Your task to perform on an android device: Search for razer deathadder on walmart, select the first entry, add it to the cart, then select checkout. Image 0: 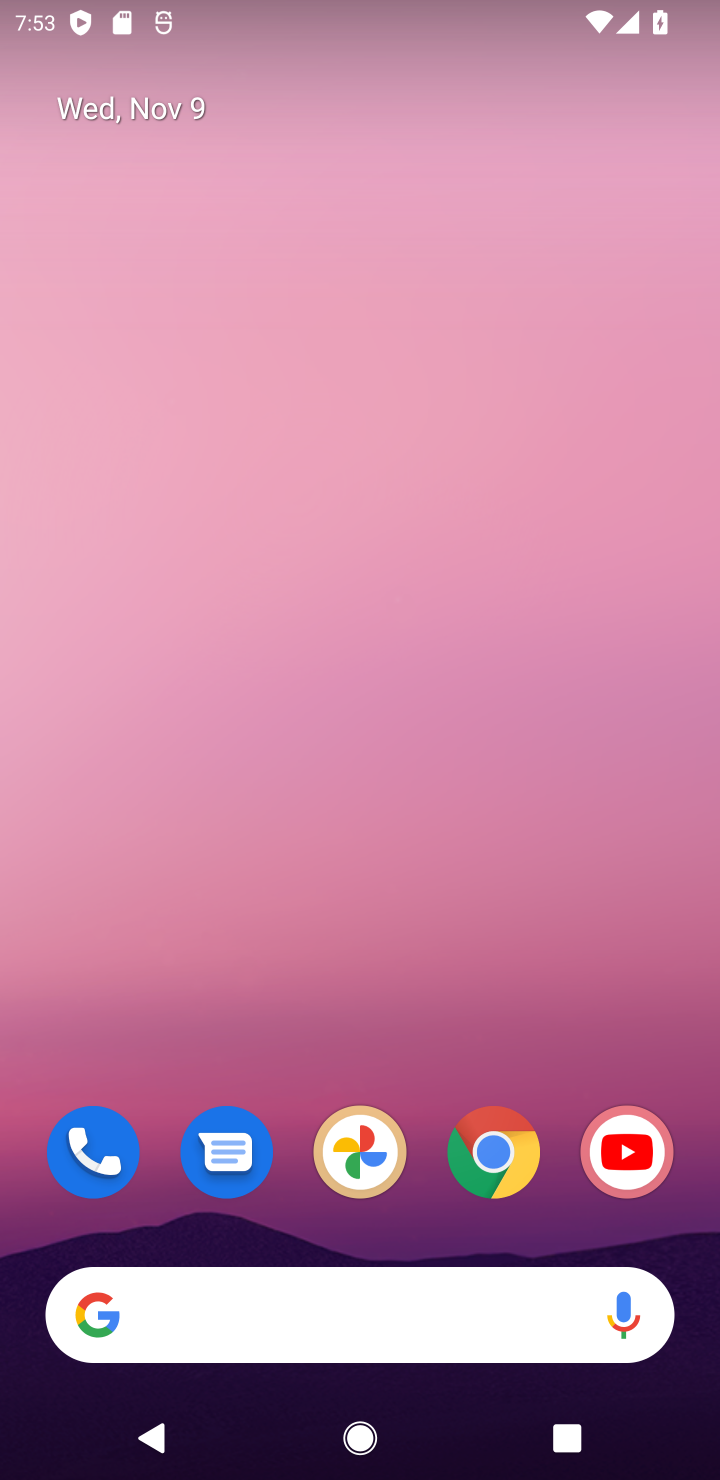
Step 0: click (666, 1210)
Your task to perform on an android device: Search for razer deathadder on walmart, select the first entry, add it to the cart, then select checkout. Image 1: 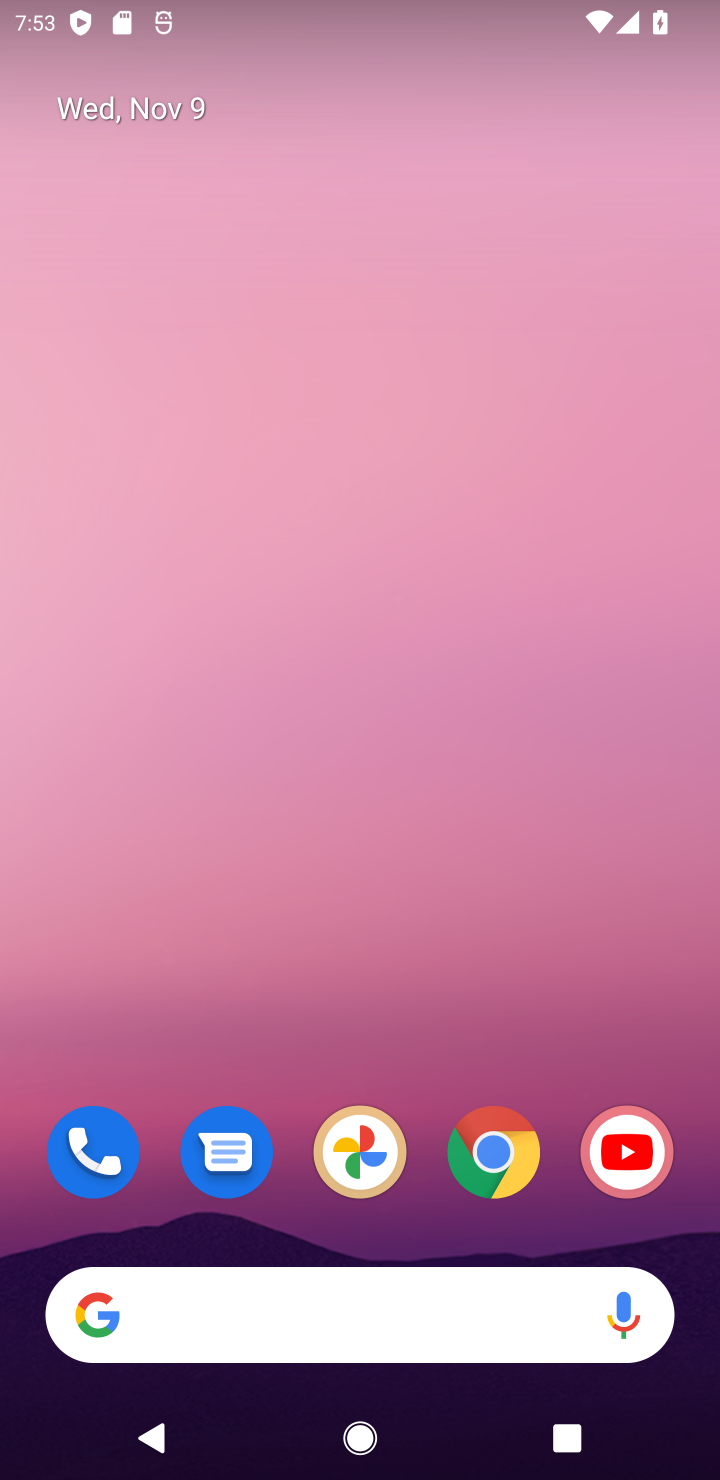
Step 1: click (514, 1153)
Your task to perform on an android device: Search for razer deathadder on walmart, select the first entry, add it to the cart, then select checkout. Image 2: 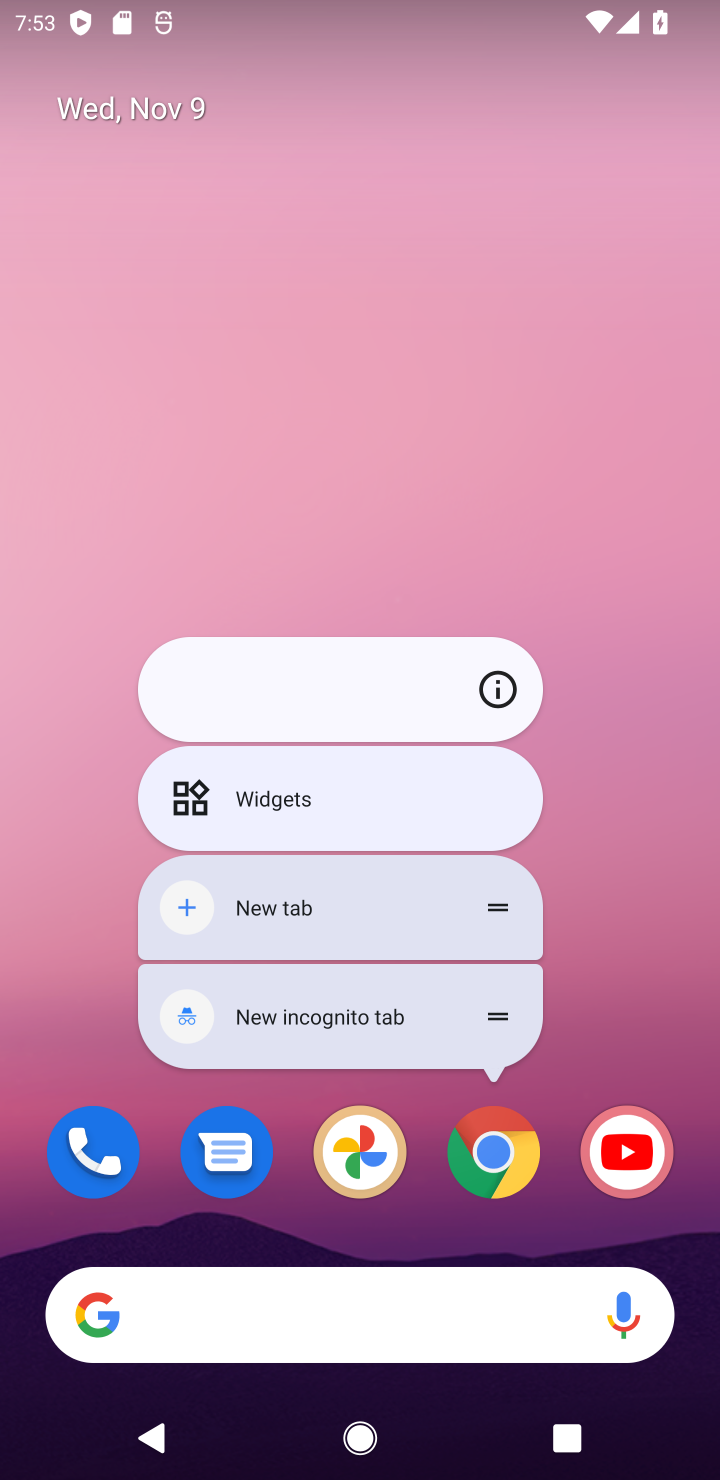
Step 2: click (499, 1157)
Your task to perform on an android device: Search for razer deathadder on walmart, select the first entry, add it to the cart, then select checkout. Image 3: 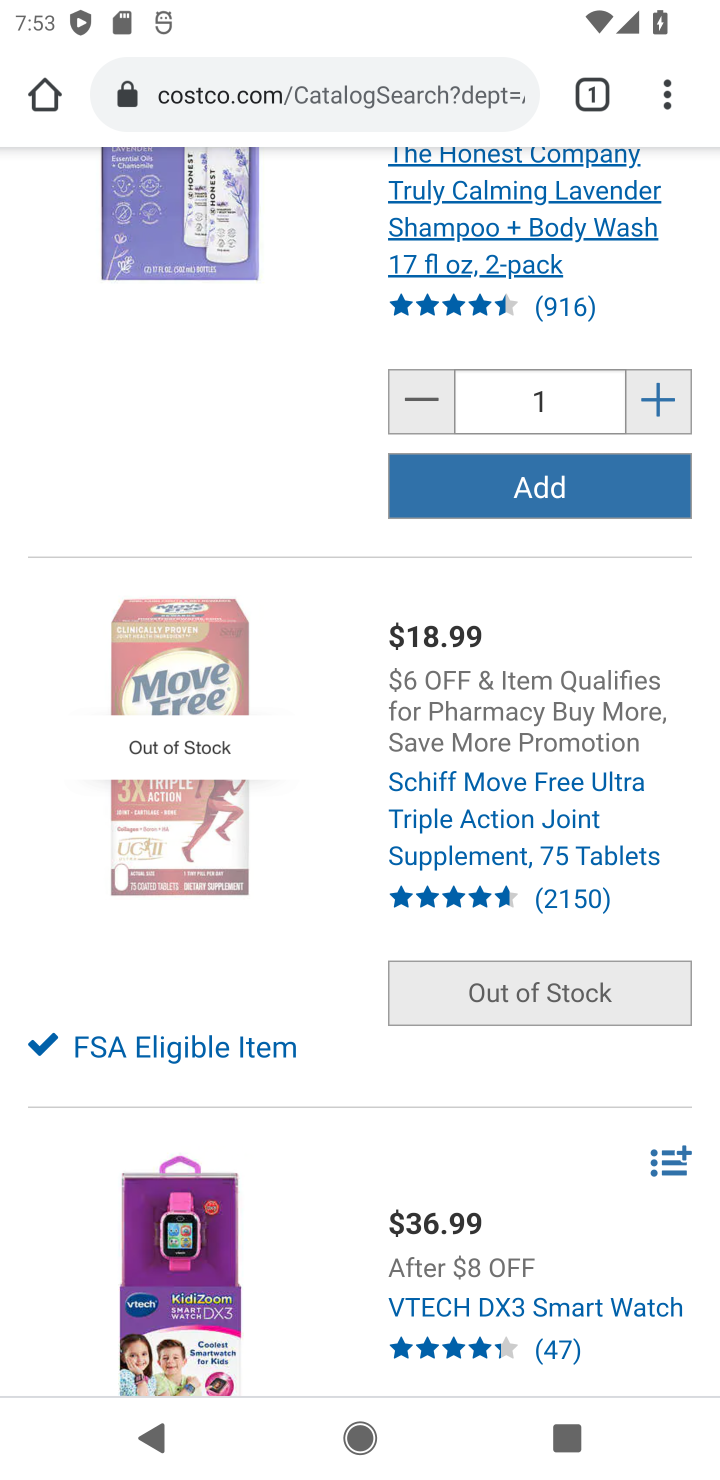
Step 3: click (463, 98)
Your task to perform on an android device: Search for razer deathadder on walmart, select the first entry, add it to the cart, then select checkout. Image 4: 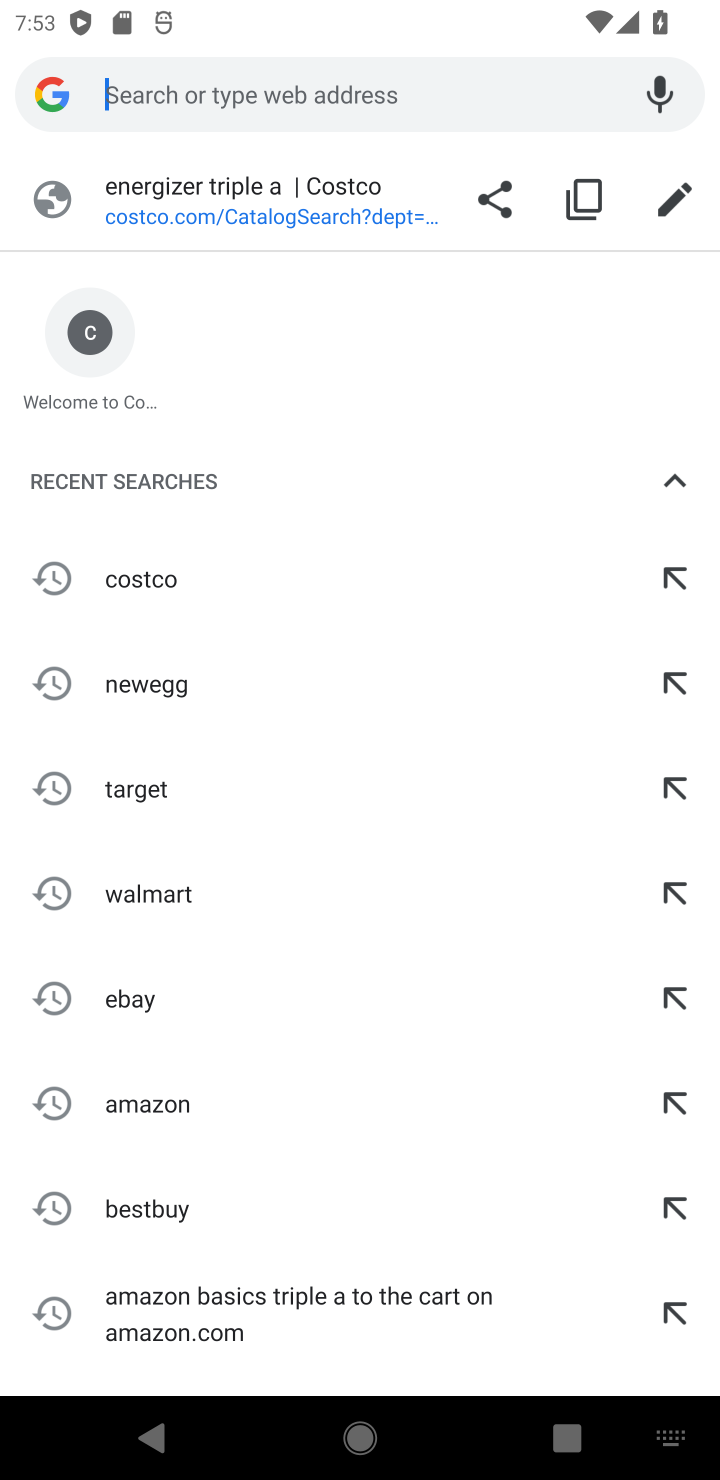
Step 4: click (151, 896)
Your task to perform on an android device: Search for razer deathadder on walmart, select the first entry, add it to the cart, then select checkout. Image 5: 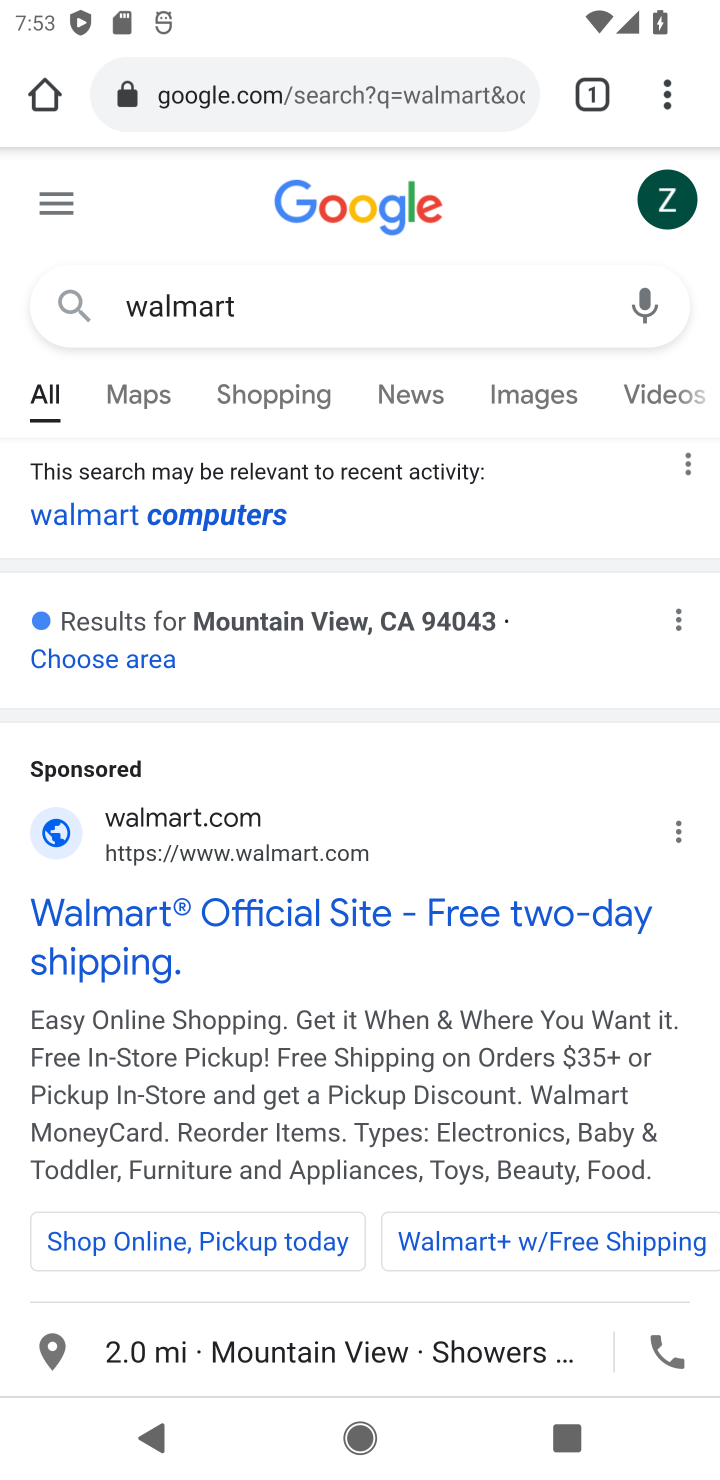
Step 5: click (131, 925)
Your task to perform on an android device: Search for razer deathadder on walmart, select the first entry, add it to the cart, then select checkout. Image 6: 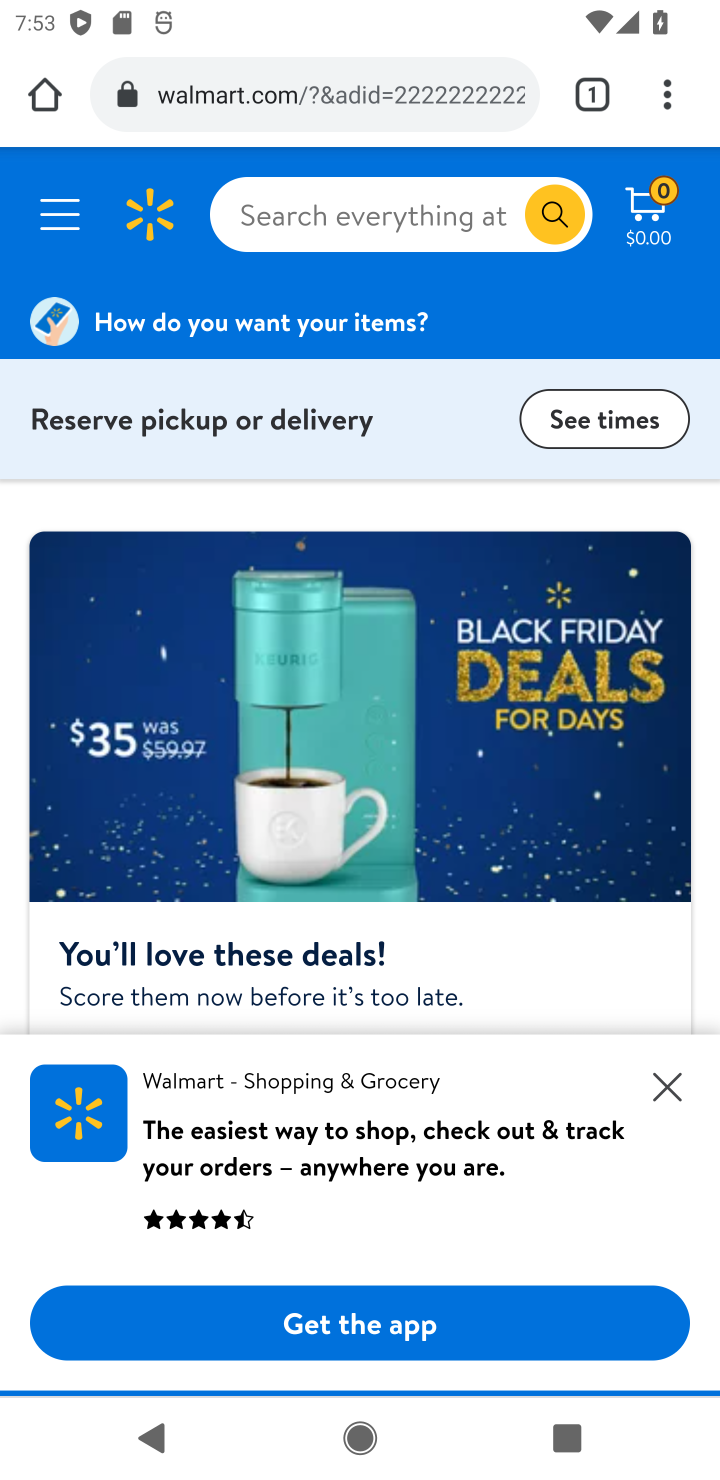
Step 6: click (414, 218)
Your task to perform on an android device: Search for razer deathadder on walmart, select the first entry, add it to the cart, then select checkout. Image 7: 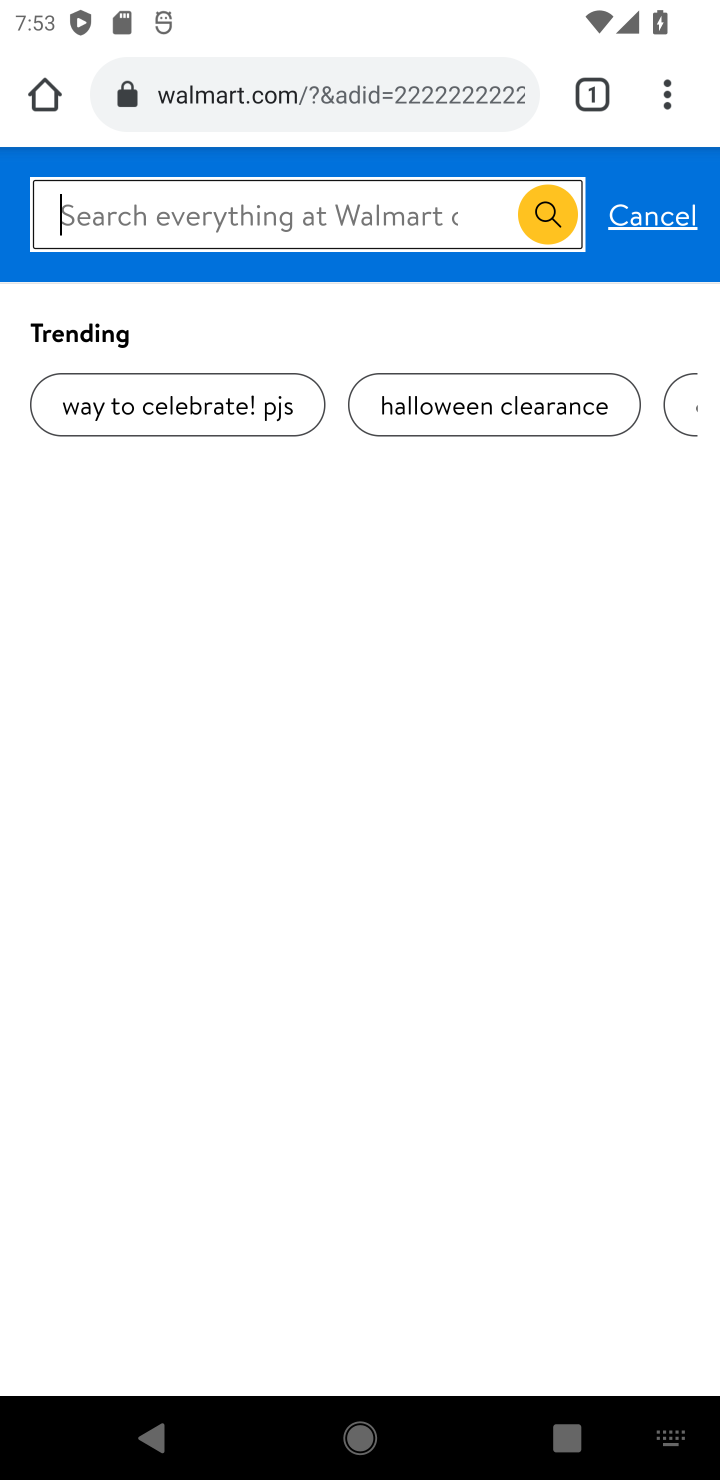
Step 7: type " razer deathadder"
Your task to perform on an android device: Search for razer deathadder on walmart, select the first entry, add it to the cart, then select checkout. Image 8: 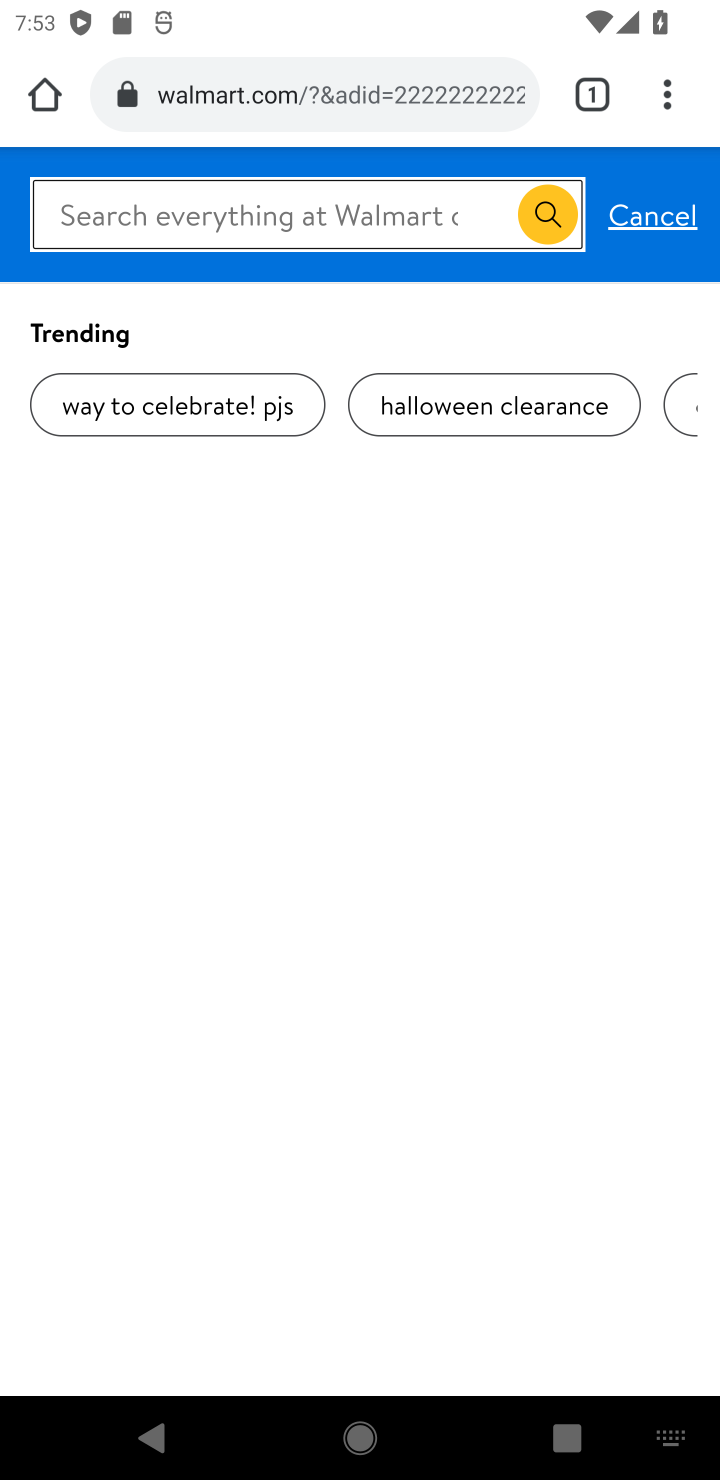
Step 8: press enter
Your task to perform on an android device: Search for razer deathadder on walmart, select the first entry, add it to the cart, then select checkout. Image 9: 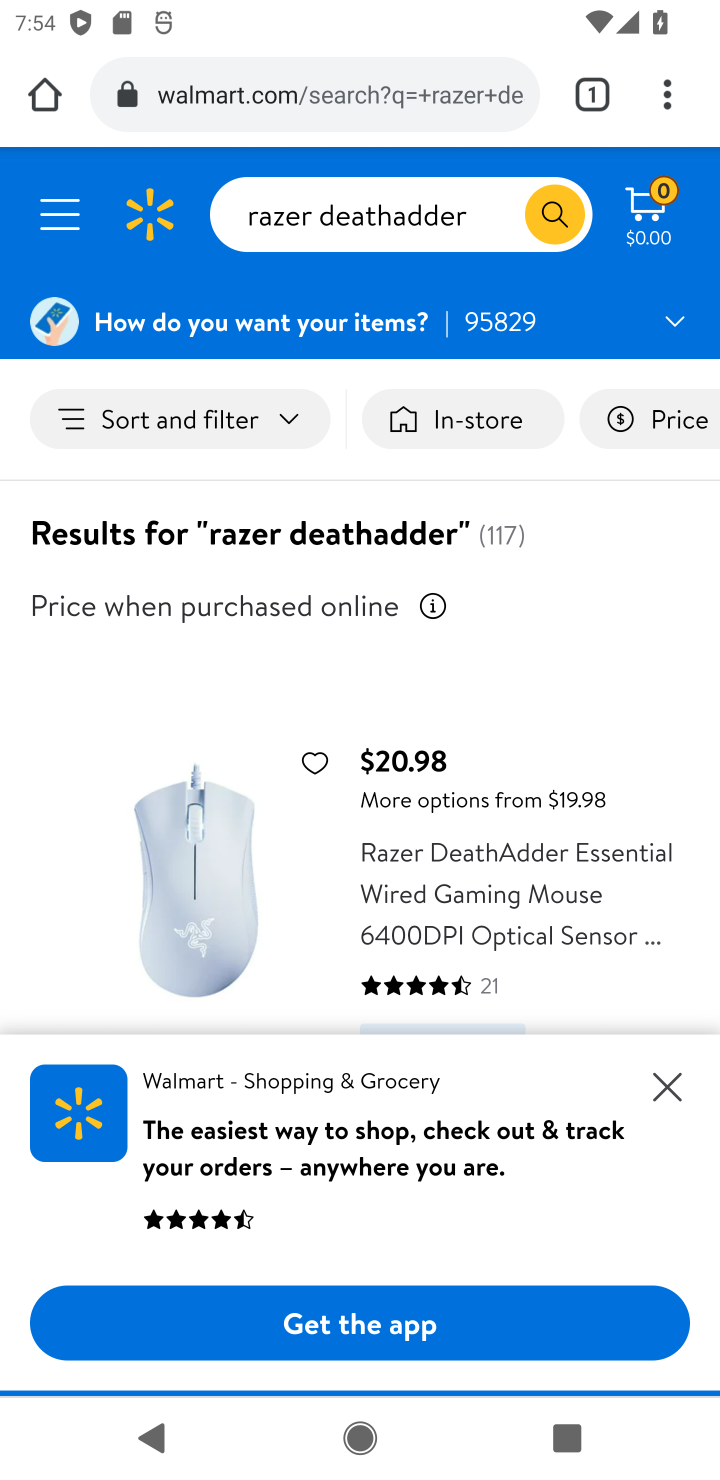
Step 9: click (665, 1079)
Your task to perform on an android device: Search for razer deathadder on walmart, select the first entry, add it to the cart, then select checkout. Image 10: 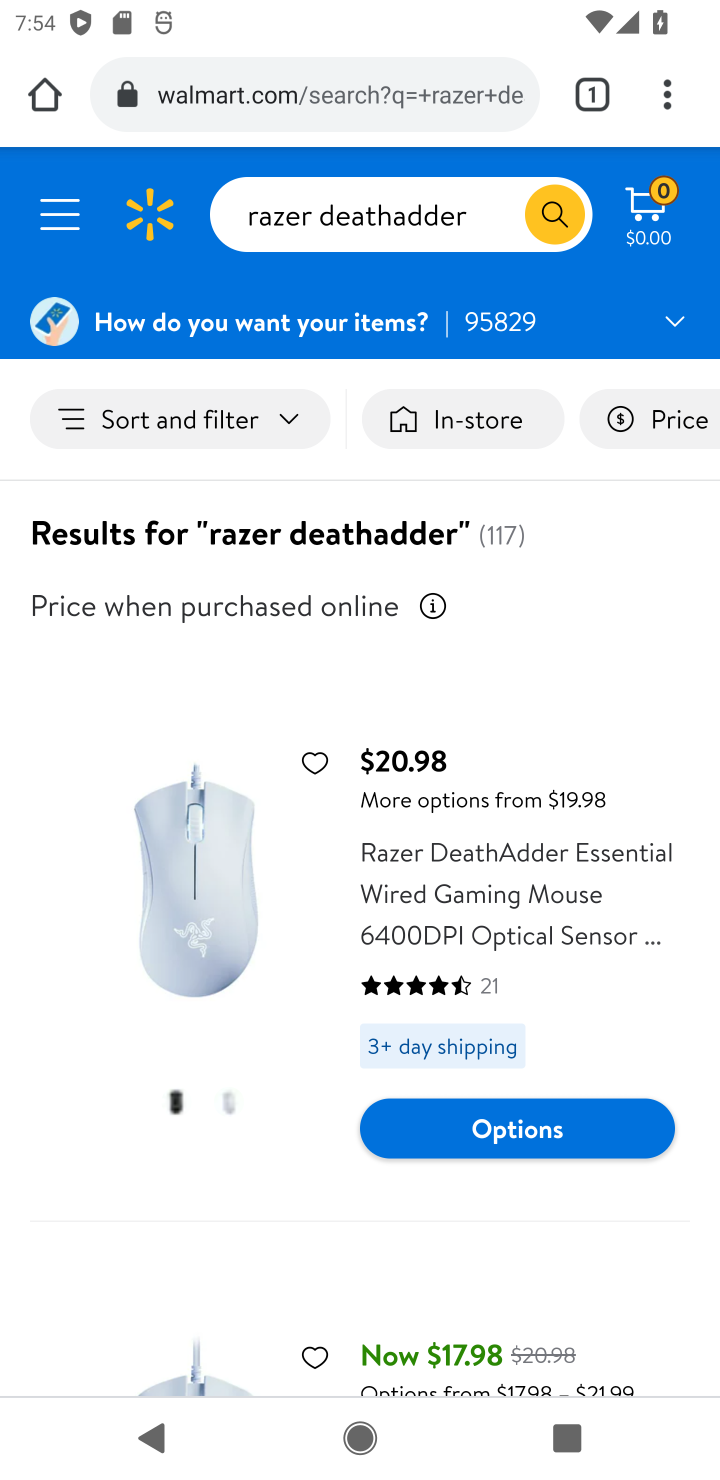
Step 10: click (473, 896)
Your task to perform on an android device: Search for razer deathadder on walmart, select the first entry, add it to the cart, then select checkout. Image 11: 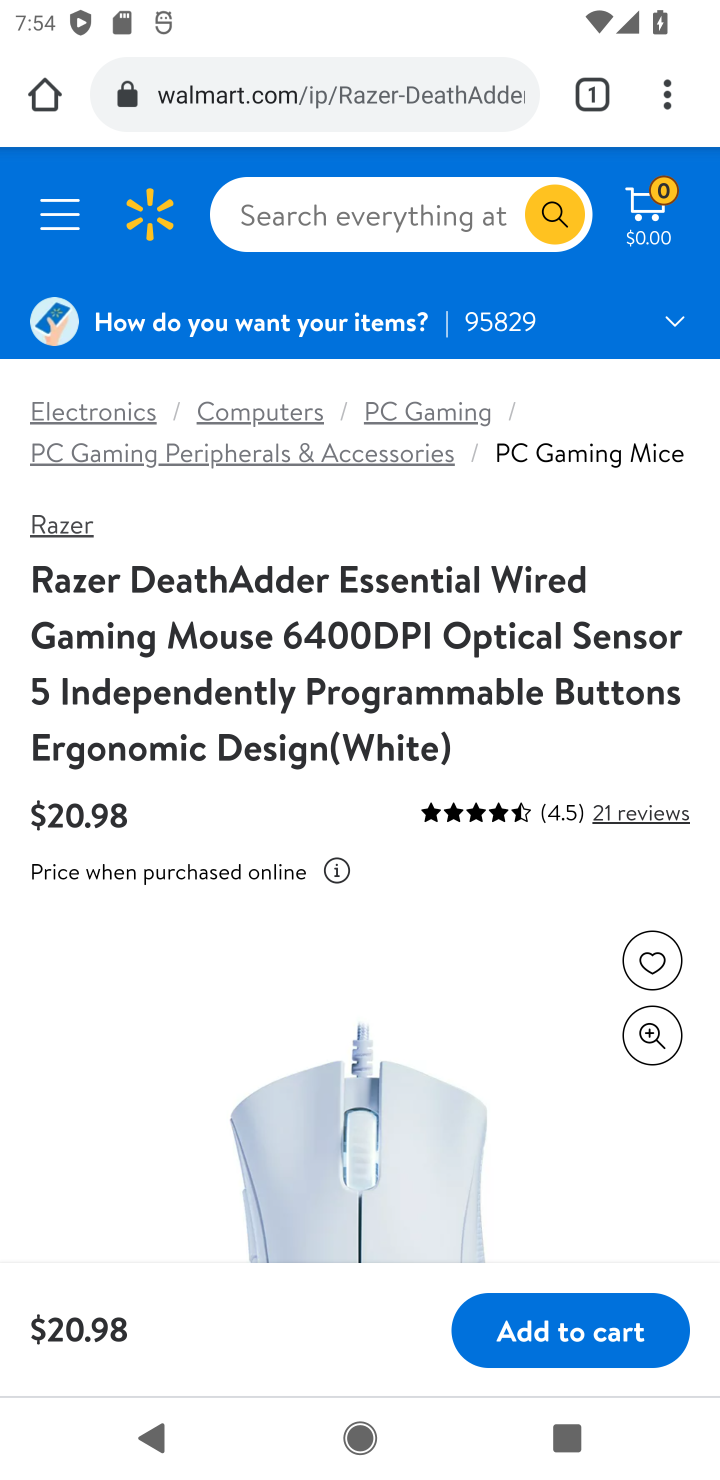
Step 11: drag from (163, 1205) to (427, 433)
Your task to perform on an android device: Search for razer deathadder on walmart, select the first entry, add it to the cart, then select checkout. Image 12: 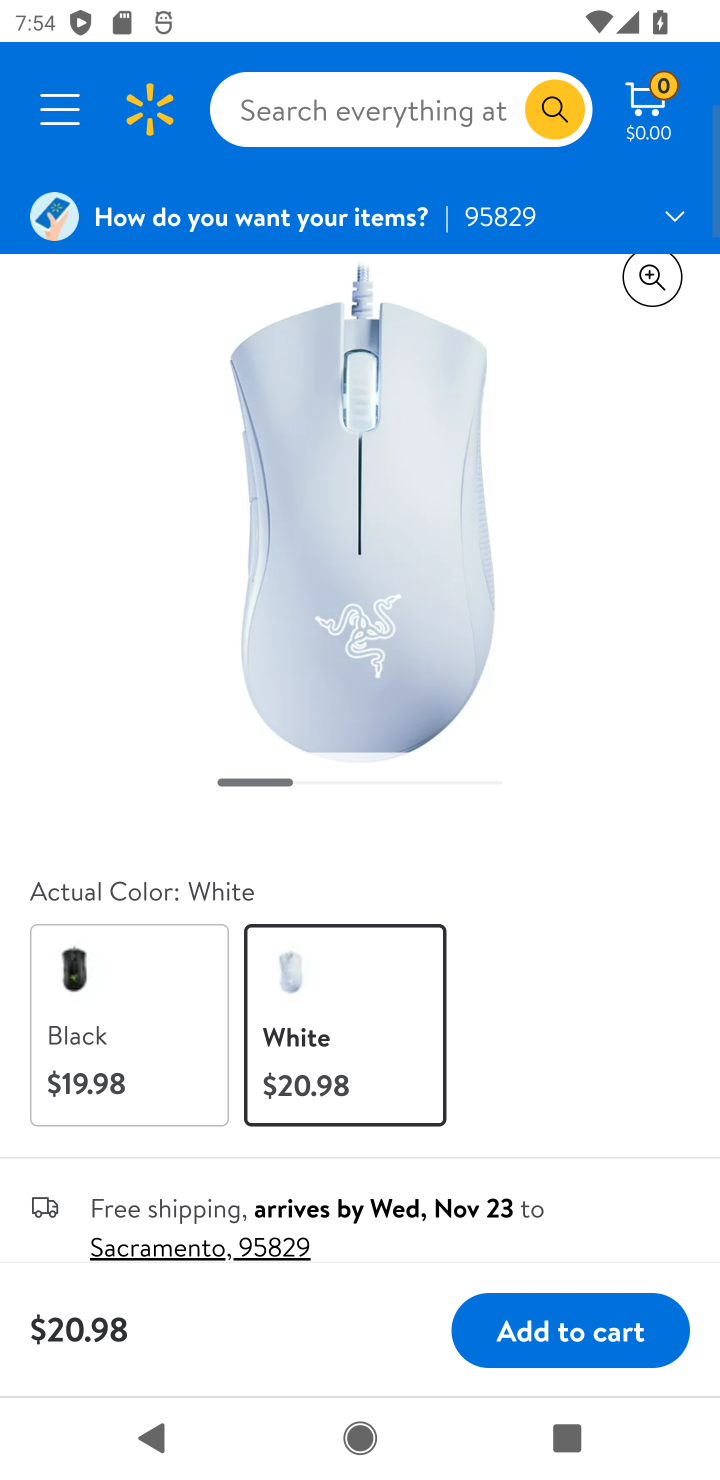
Step 12: click (572, 1333)
Your task to perform on an android device: Search for razer deathadder on walmart, select the first entry, add it to the cart, then select checkout. Image 13: 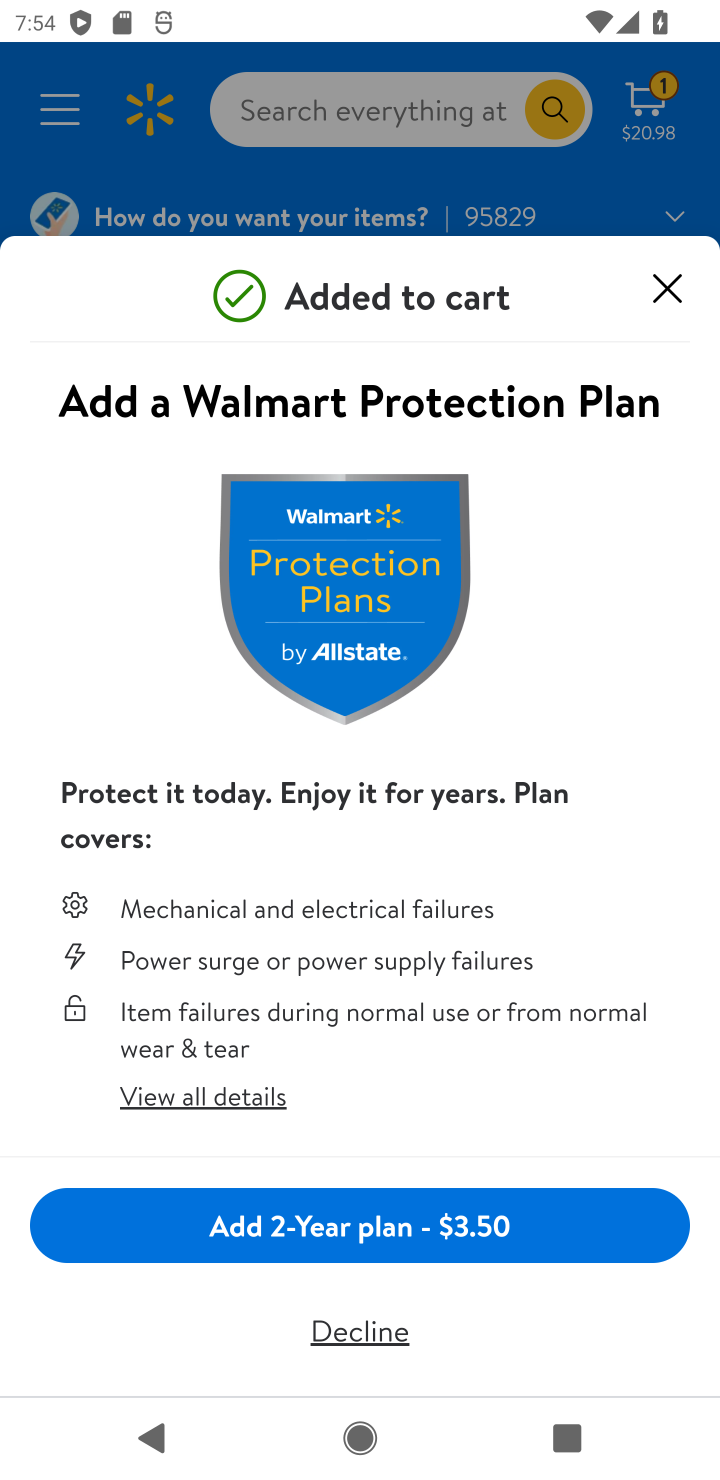
Step 13: click (667, 279)
Your task to perform on an android device: Search for razer deathadder on walmart, select the first entry, add it to the cart, then select checkout. Image 14: 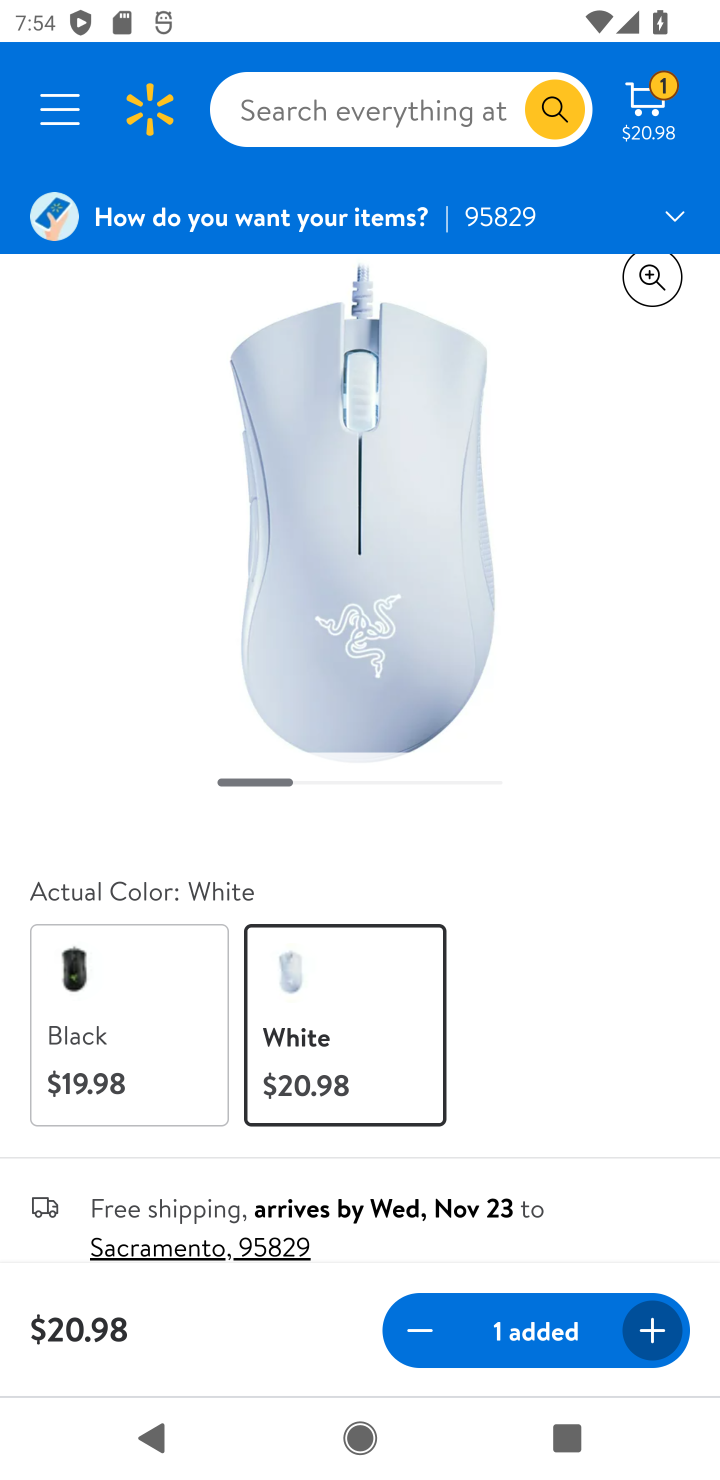
Step 14: click (645, 111)
Your task to perform on an android device: Search for razer deathadder on walmart, select the first entry, add it to the cart, then select checkout. Image 15: 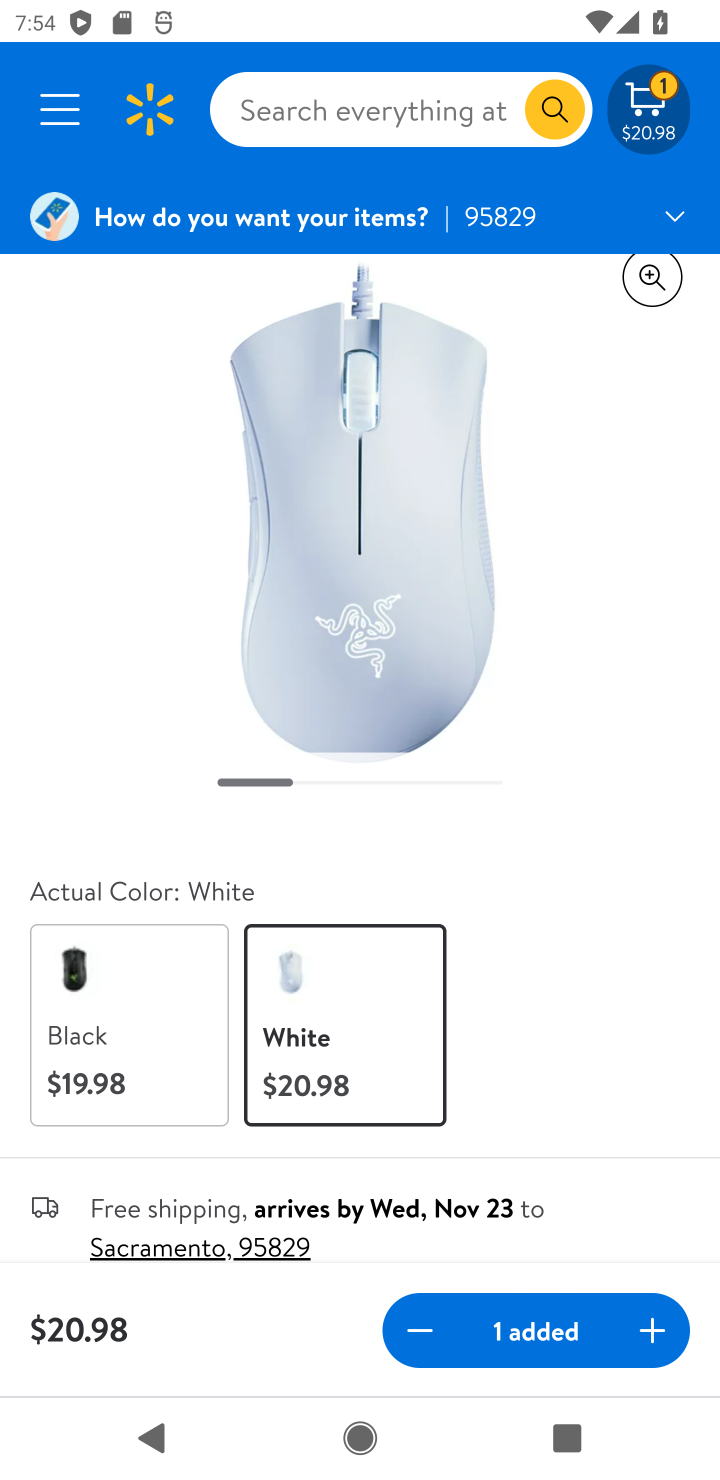
Step 15: click (663, 96)
Your task to perform on an android device: Search for razer deathadder on walmart, select the first entry, add it to the cart, then select checkout. Image 16: 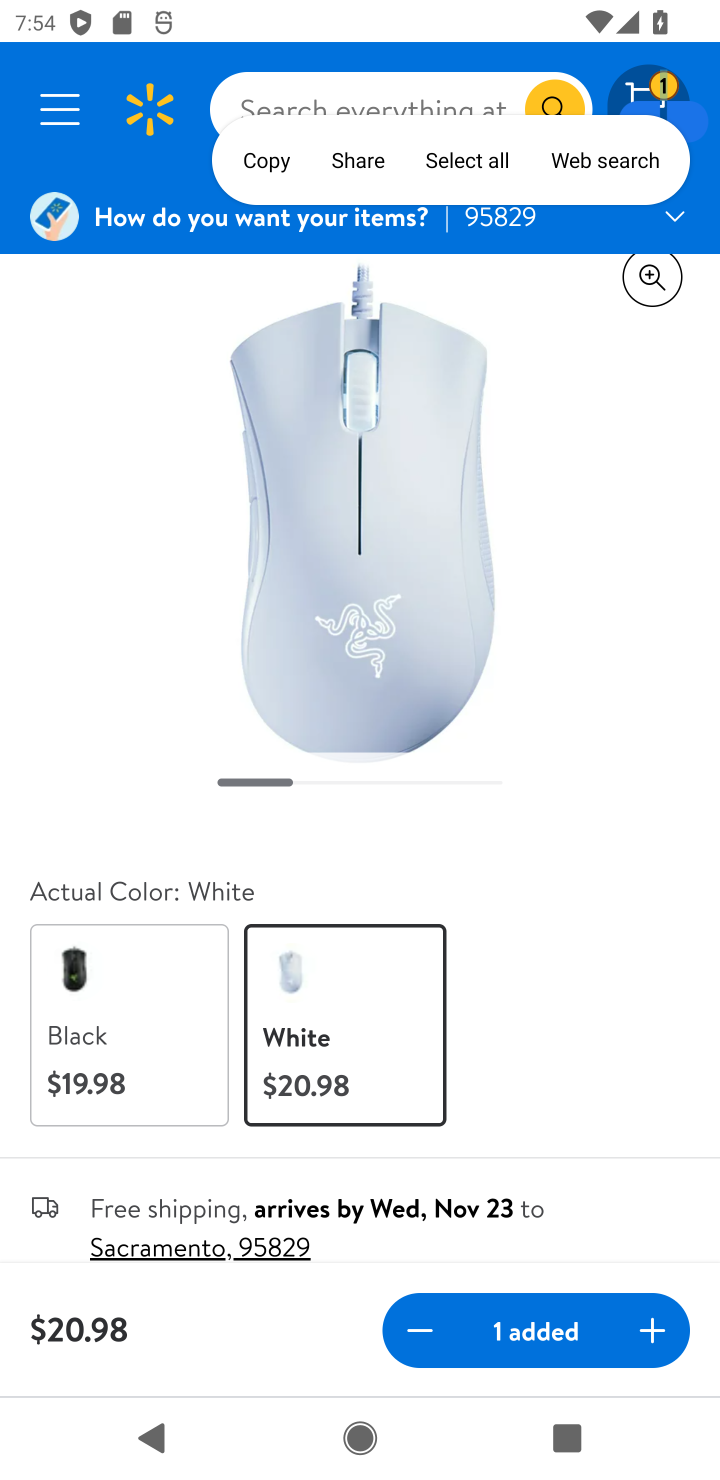
Step 16: click (667, 86)
Your task to perform on an android device: Search for razer deathadder on walmart, select the first entry, add it to the cart, then select checkout. Image 17: 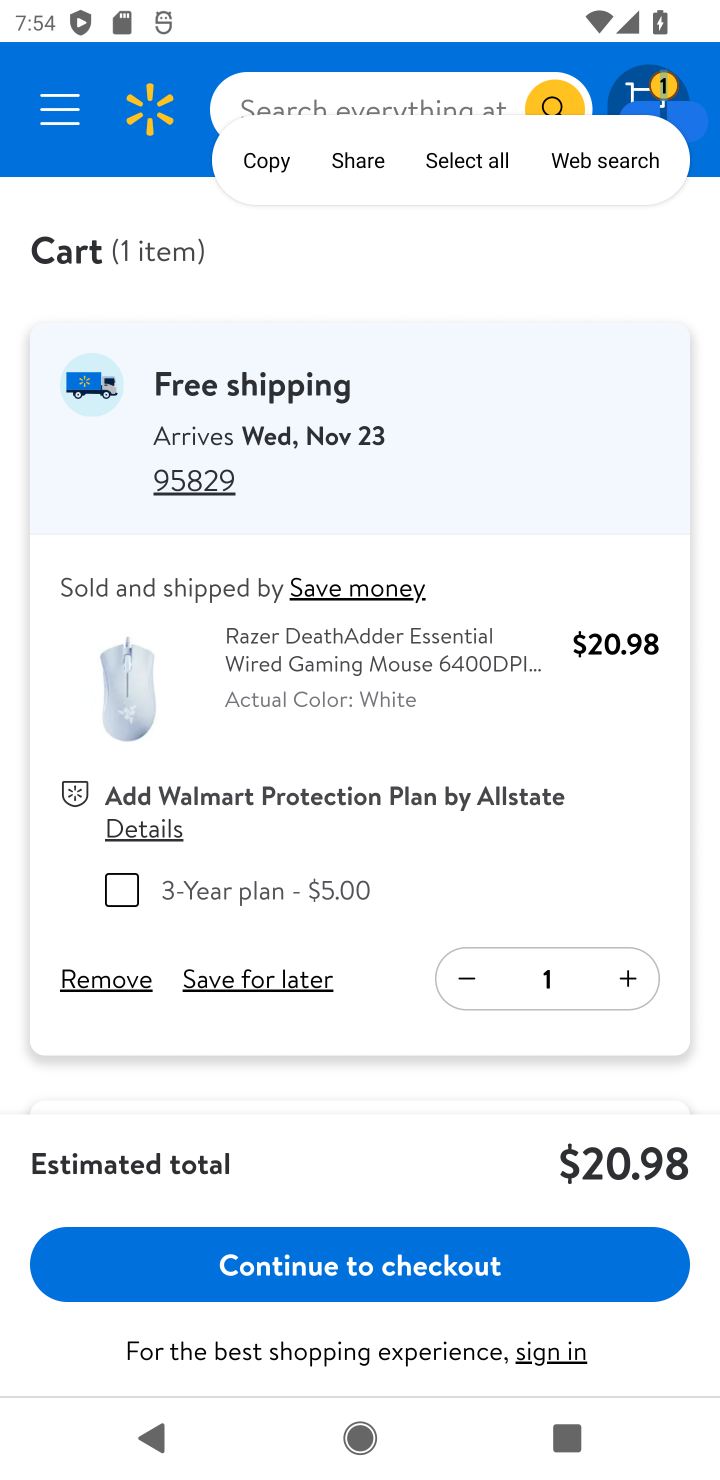
Step 17: click (318, 1259)
Your task to perform on an android device: Search for razer deathadder on walmart, select the first entry, add it to the cart, then select checkout. Image 18: 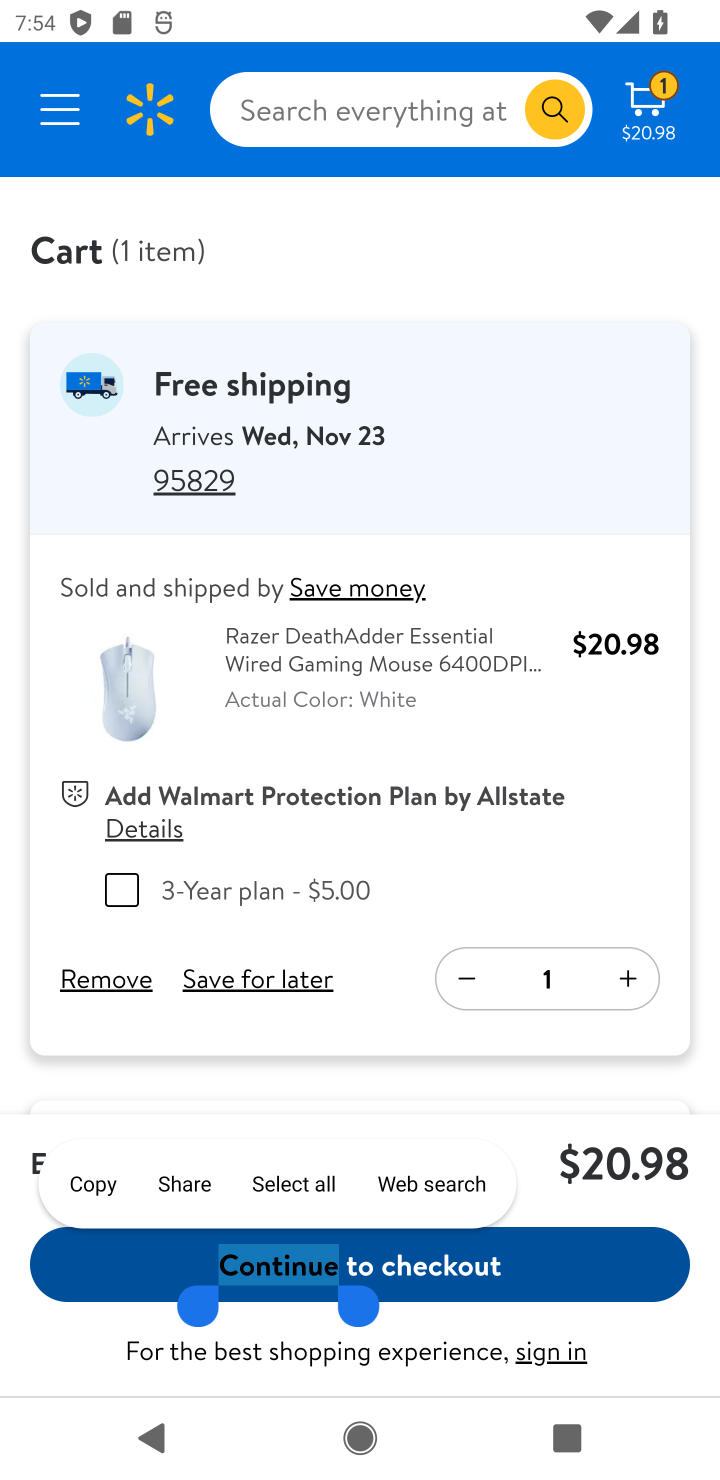
Step 18: click (362, 1272)
Your task to perform on an android device: Search for razer deathadder on walmart, select the first entry, add it to the cart, then select checkout. Image 19: 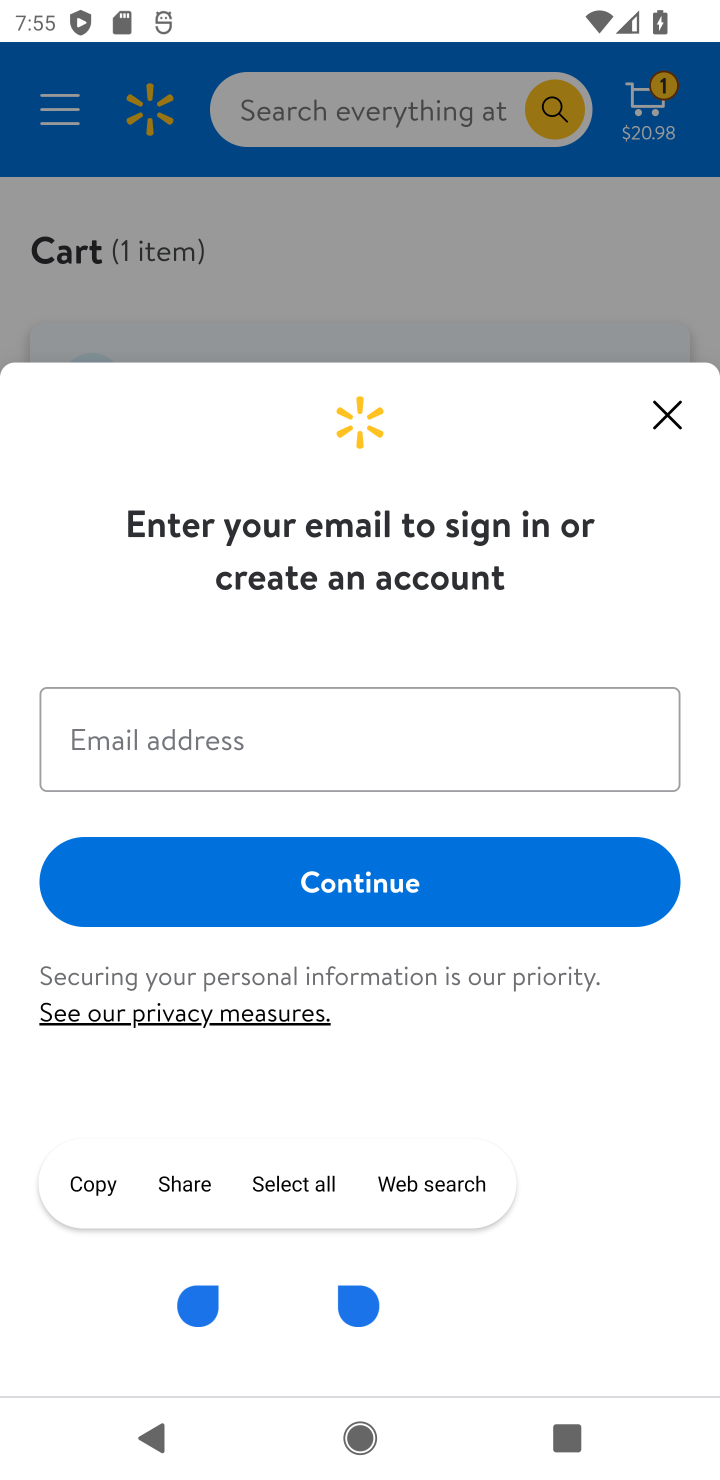
Step 19: task complete